Your task to perform on an android device: set an alarm Image 0: 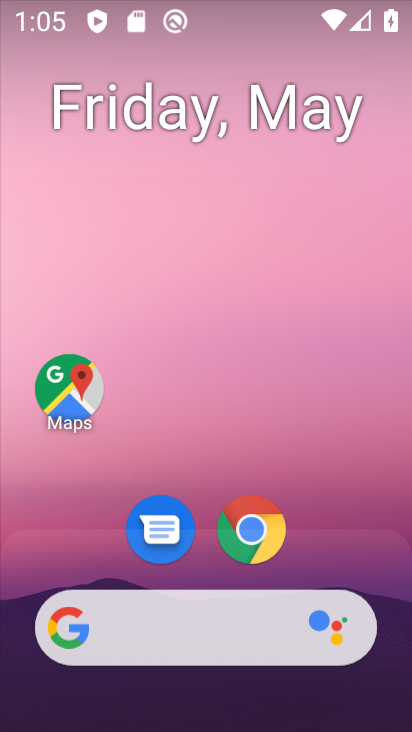
Step 0: drag from (393, 706) to (389, 206)
Your task to perform on an android device: set an alarm Image 1: 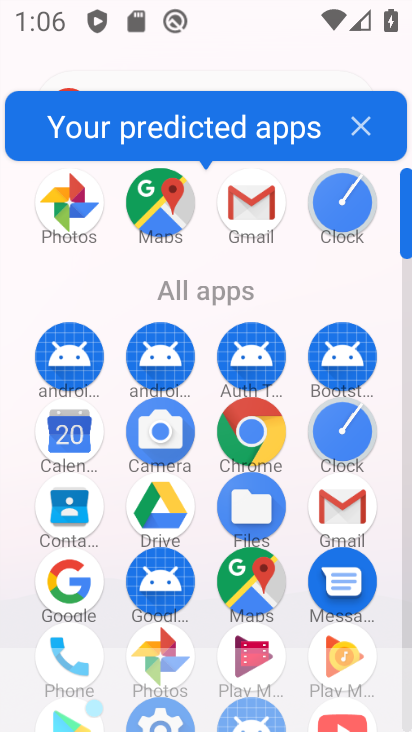
Step 1: click (335, 443)
Your task to perform on an android device: set an alarm Image 2: 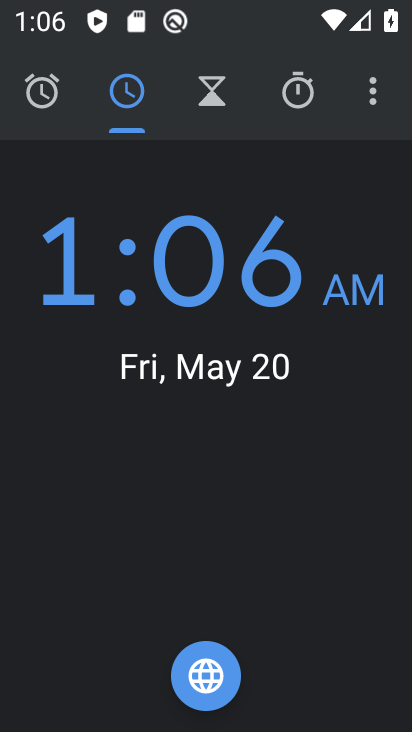
Step 2: click (31, 78)
Your task to perform on an android device: set an alarm Image 3: 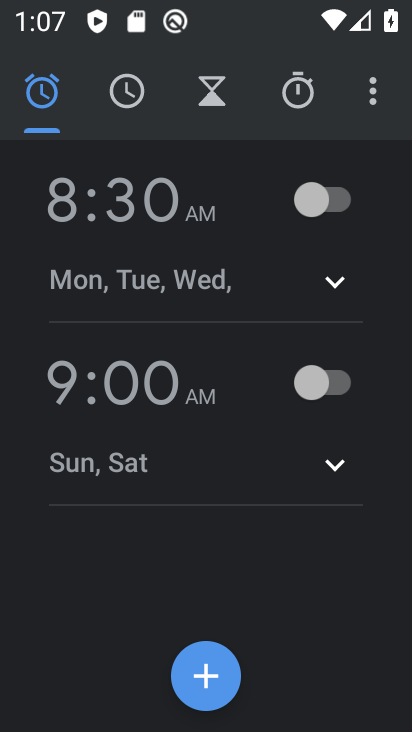
Step 3: click (350, 202)
Your task to perform on an android device: set an alarm Image 4: 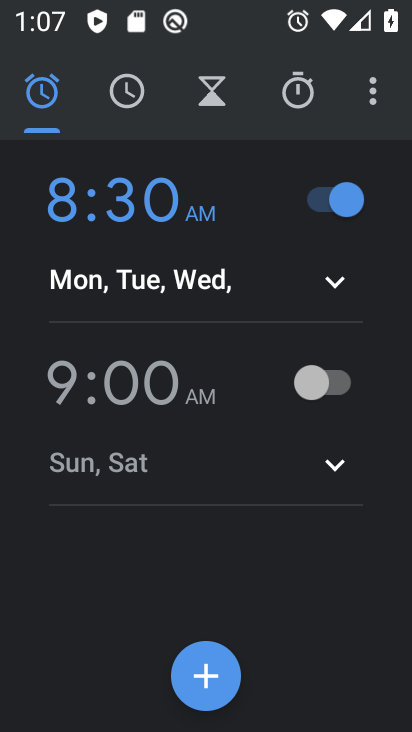
Step 4: task complete